Your task to perform on an android device: change the clock display to show seconds Image 0: 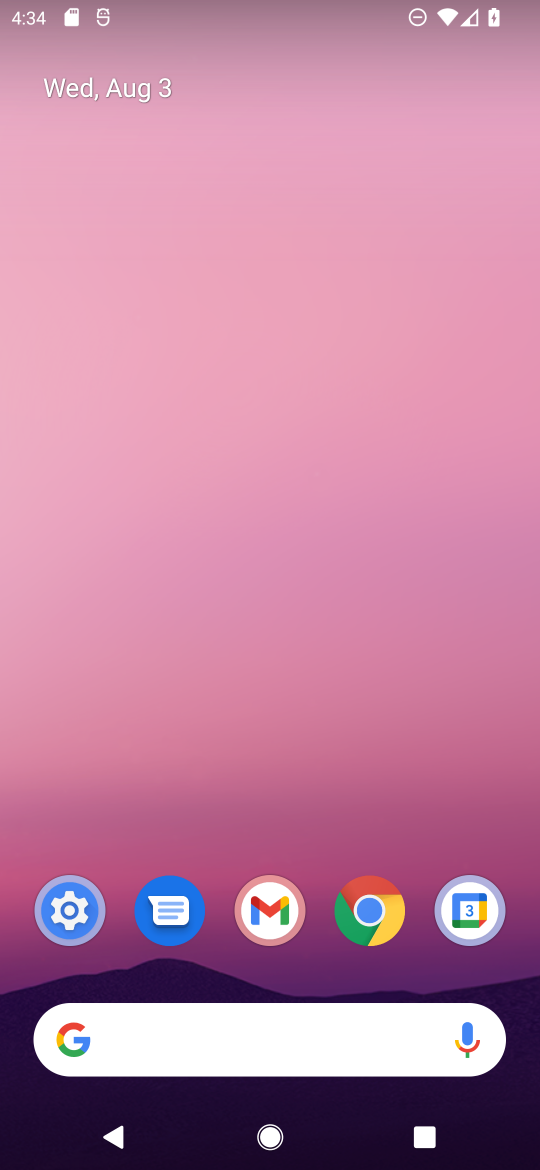
Step 0: drag from (28, 1100) to (292, 2)
Your task to perform on an android device: change the clock display to show seconds Image 1: 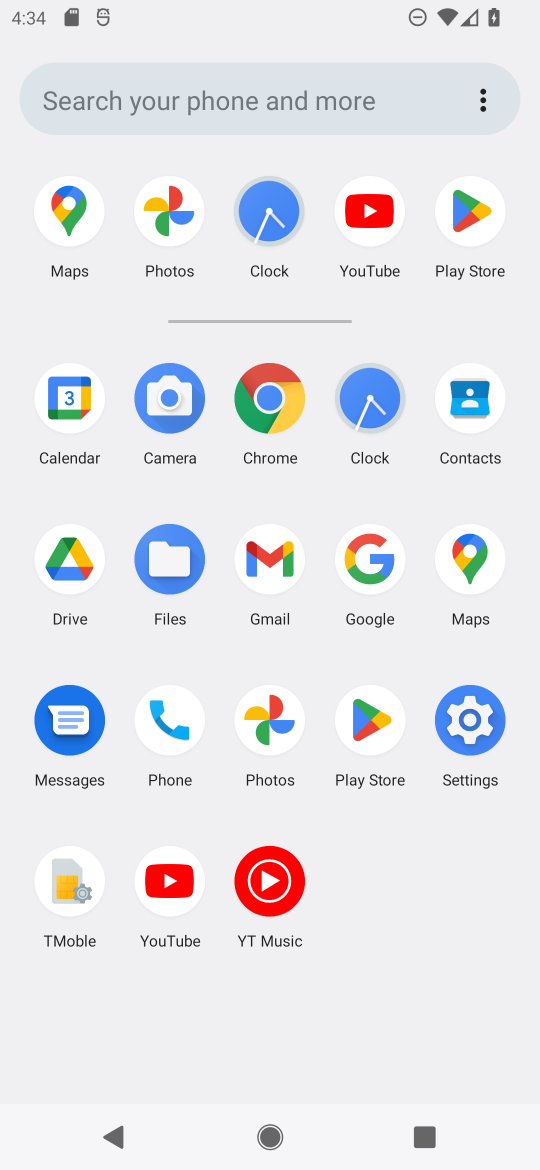
Step 1: click (362, 397)
Your task to perform on an android device: change the clock display to show seconds Image 2: 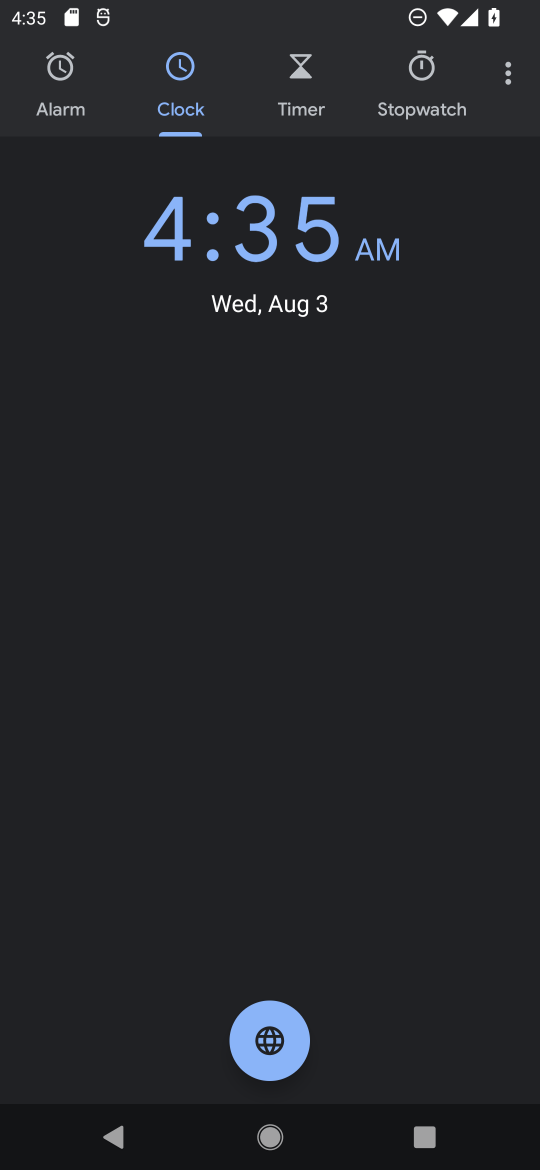
Step 2: click (504, 69)
Your task to perform on an android device: change the clock display to show seconds Image 3: 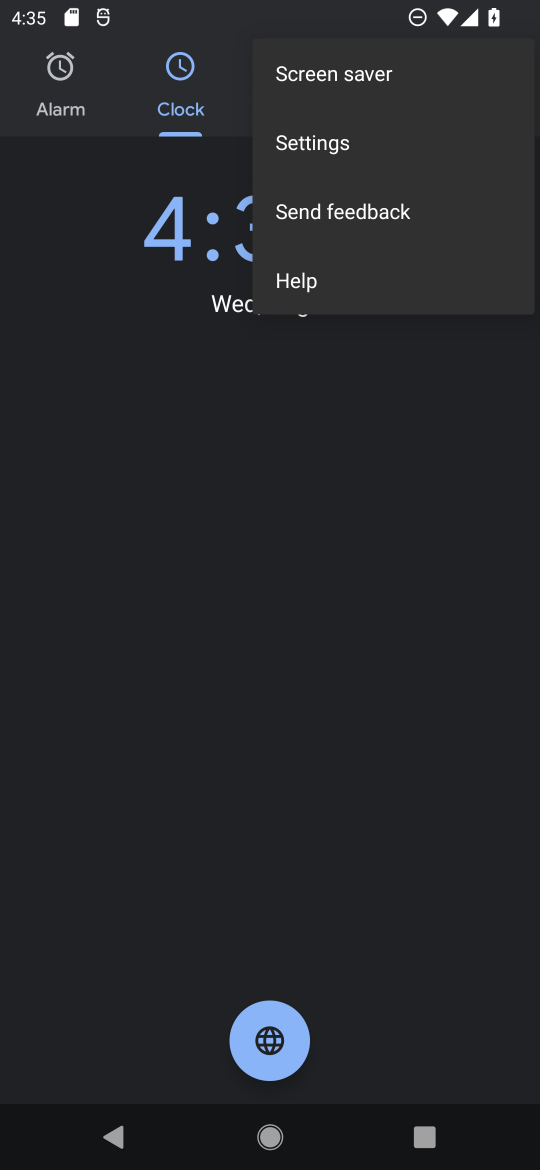
Step 3: click (337, 155)
Your task to perform on an android device: change the clock display to show seconds Image 4: 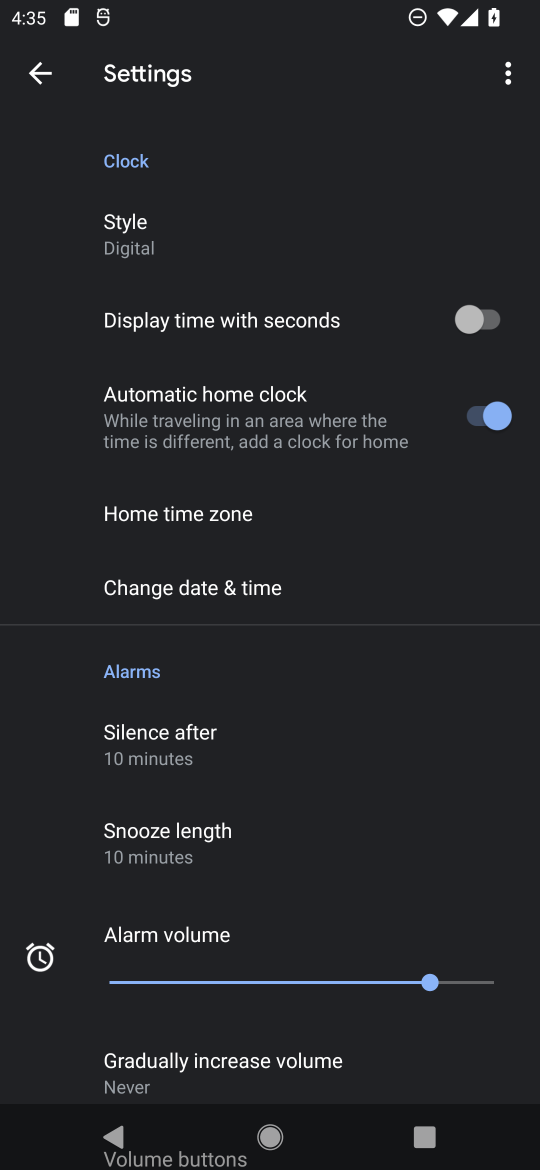
Step 4: click (467, 325)
Your task to perform on an android device: change the clock display to show seconds Image 5: 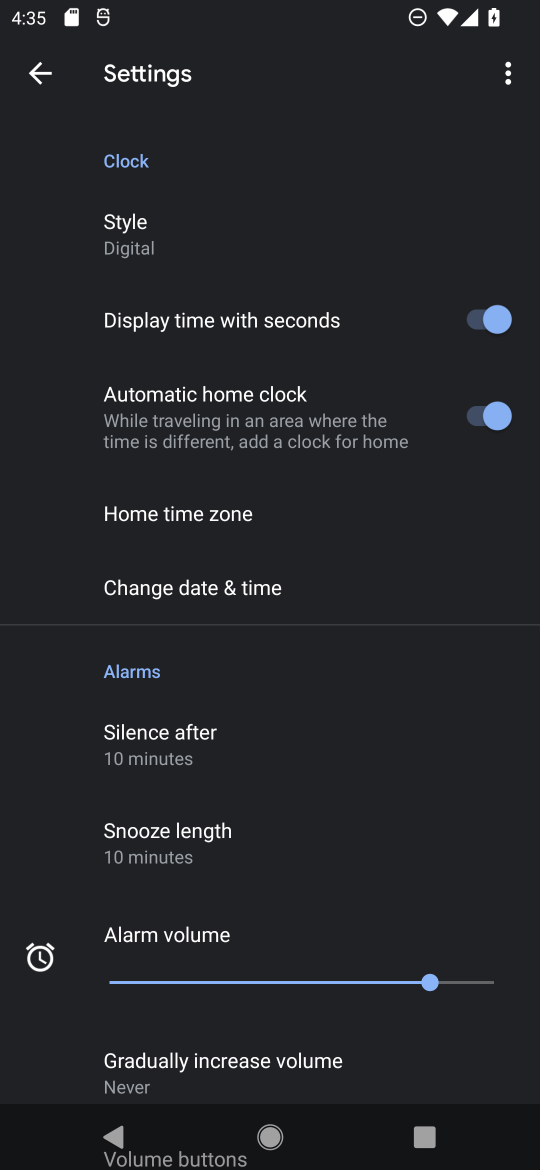
Step 5: task complete